Your task to perform on an android device: Go to sound settings Image 0: 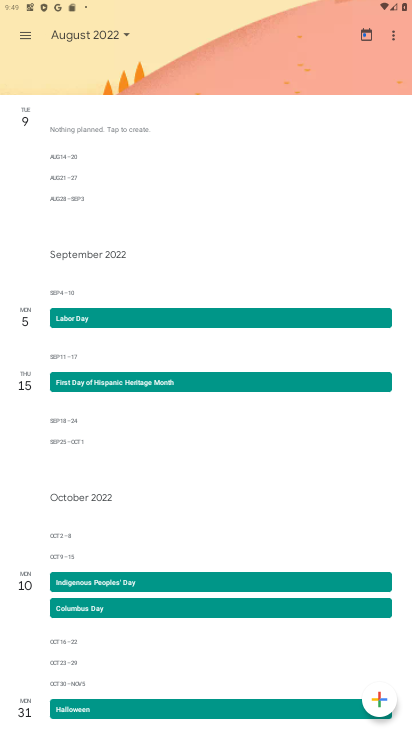
Step 0: press home button
Your task to perform on an android device: Go to sound settings Image 1: 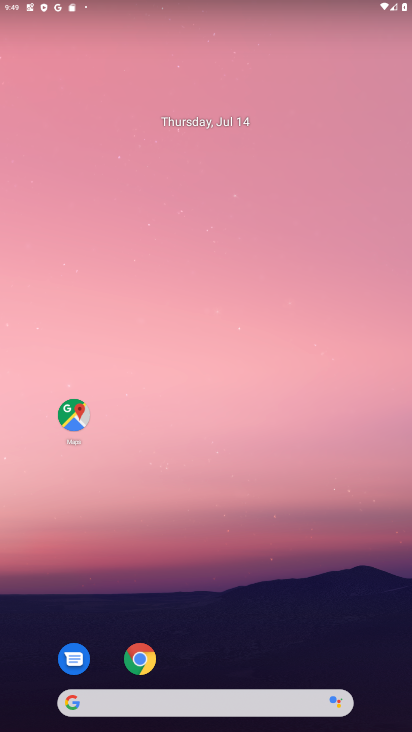
Step 1: drag from (234, 661) to (233, 72)
Your task to perform on an android device: Go to sound settings Image 2: 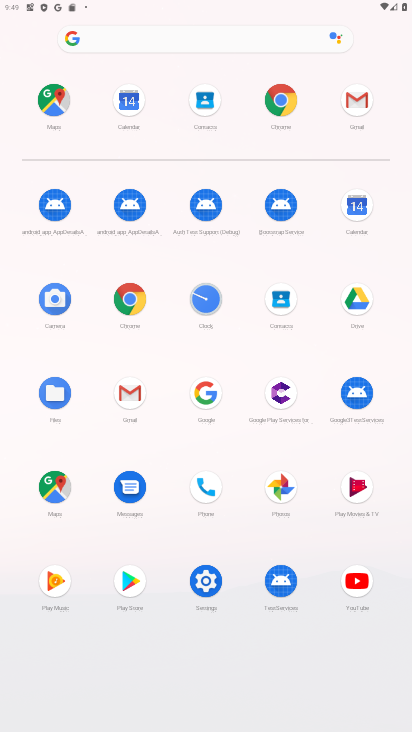
Step 2: click (209, 580)
Your task to perform on an android device: Go to sound settings Image 3: 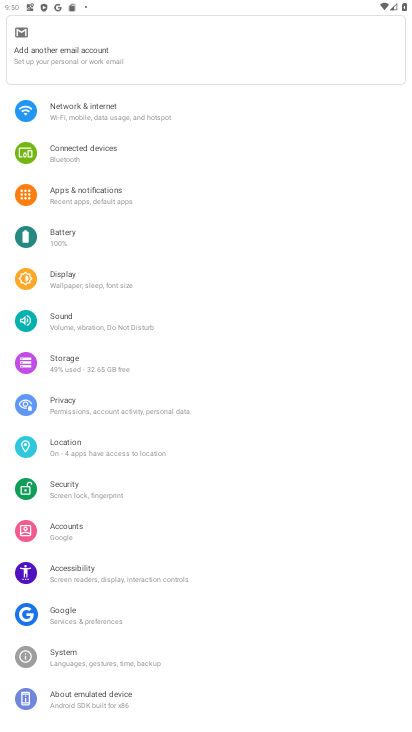
Step 3: click (81, 321)
Your task to perform on an android device: Go to sound settings Image 4: 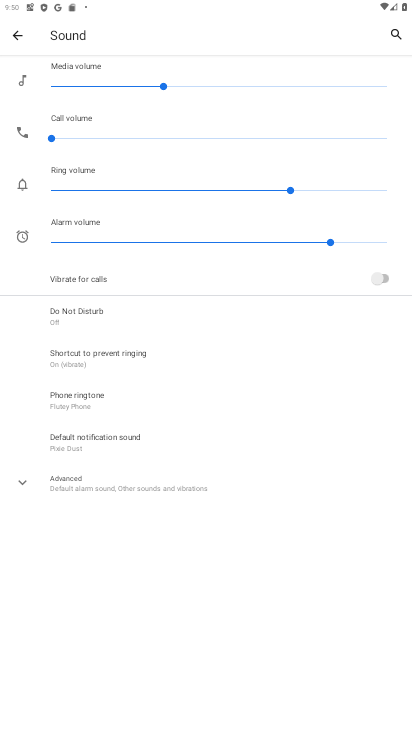
Step 4: task complete